Your task to perform on an android device: Check the weather Image 0: 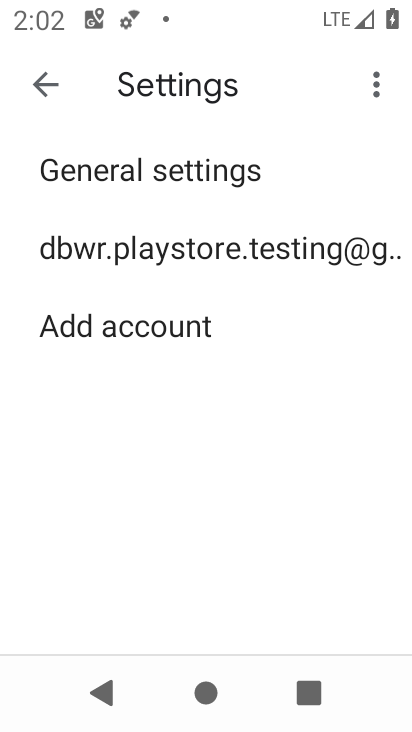
Step 0: press home button
Your task to perform on an android device: Check the weather Image 1: 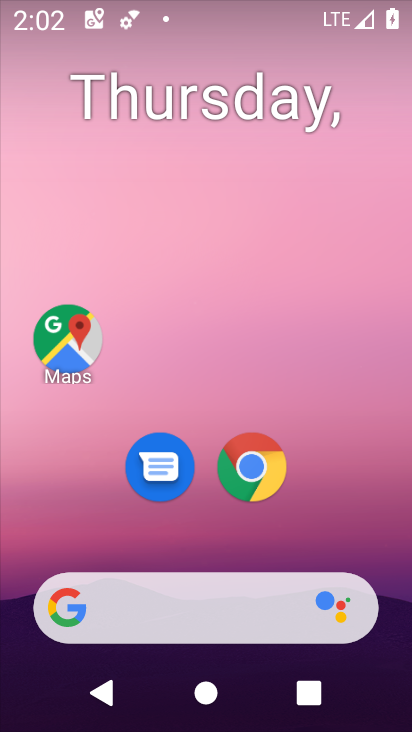
Step 1: drag from (205, 539) to (260, 0)
Your task to perform on an android device: Check the weather Image 2: 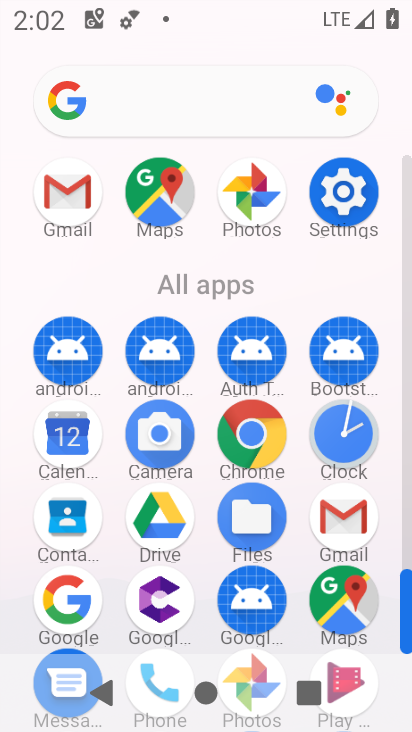
Step 2: click (64, 588)
Your task to perform on an android device: Check the weather Image 3: 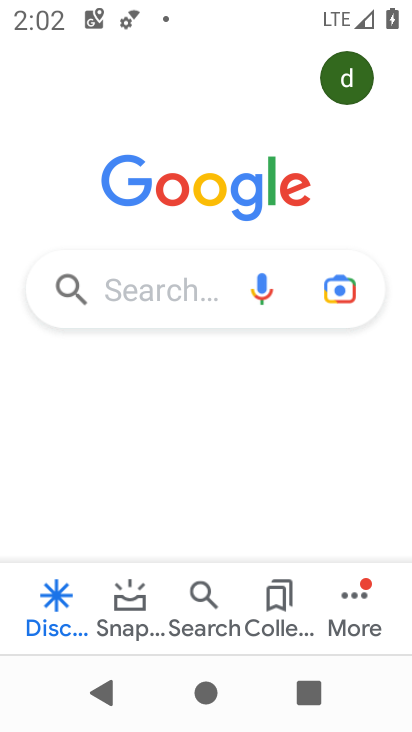
Step 3: click (146, 310)
Your task to perform on an android device: Check the weather Image 4: 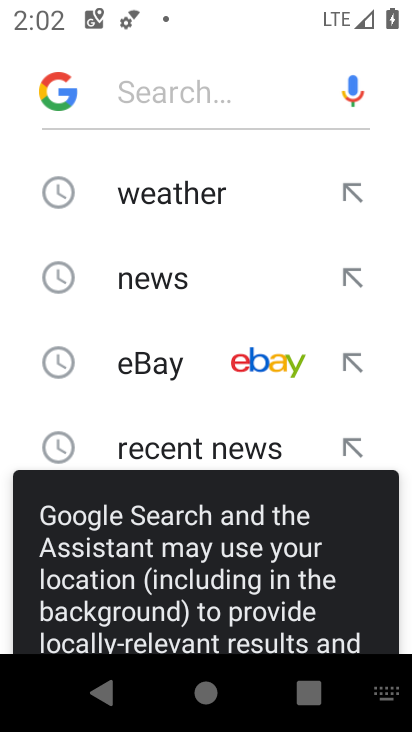
Step 4: click (164, 208)
Your task to perform on an android device: Check the weather Image 5: 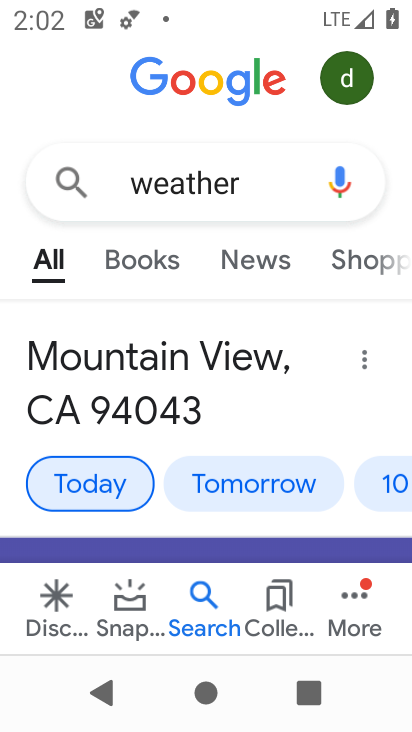
Step 5: task complete